Your task to perform on an android device: turn pop-ups on in chrome Image 0: 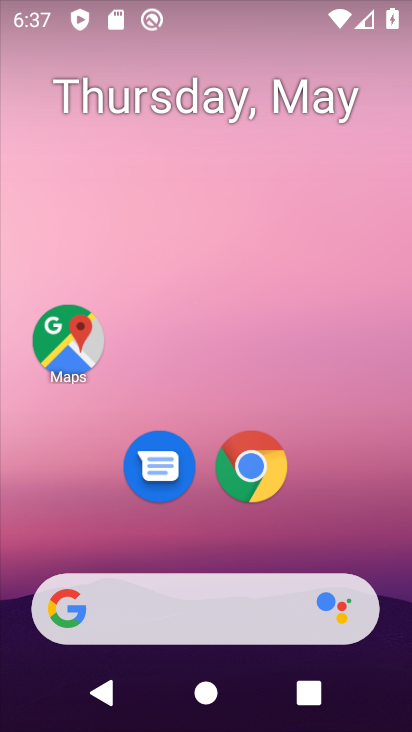
Step 0: click (253, 464)
Your task to perform on an android device: turn pop-ups on in chrome Image 1: 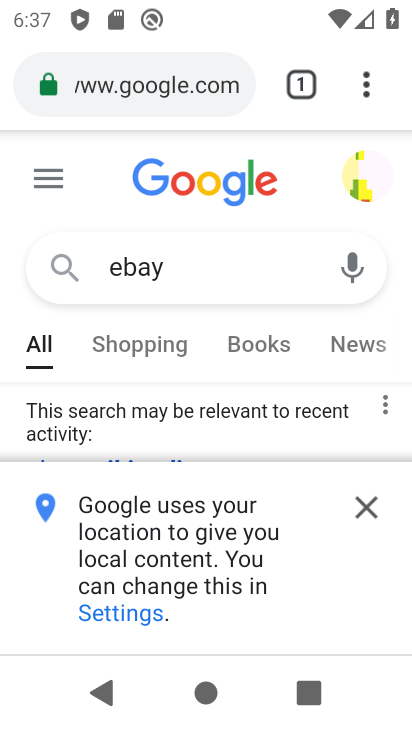
Step 1: click (363, 80)
Your task to perform on an android device: turn pop-ups on in chrome Image 2: 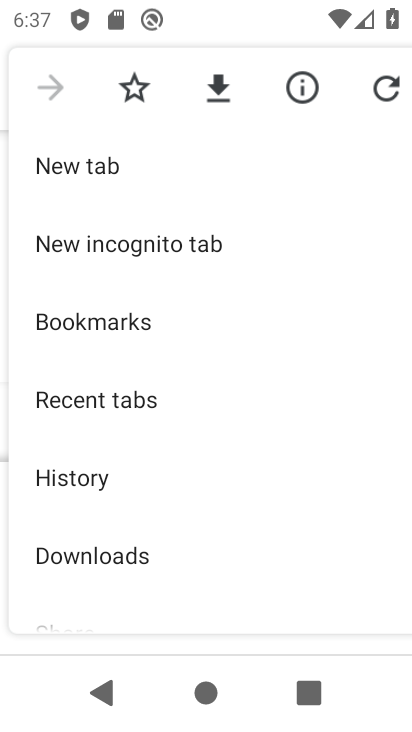
Step 2: drag from (243, 418) to (219, 103)
Your task to perform on an android device: turn pop-ups on in chrome Image 3: 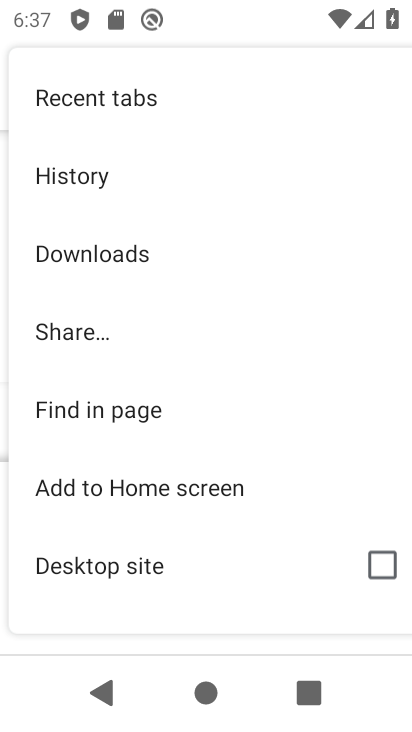
Step 3: drag from (247, 517) to (247, 200)
Your task to perform on an android device: turn pop-ups on in chrome Image 4: 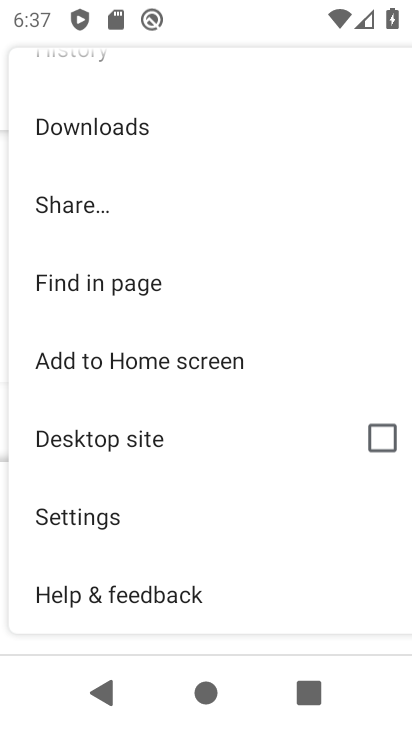
Step 4: click (76, 520)
Your task to perform on an android device: turn pop-ups on in chrome Image 5: 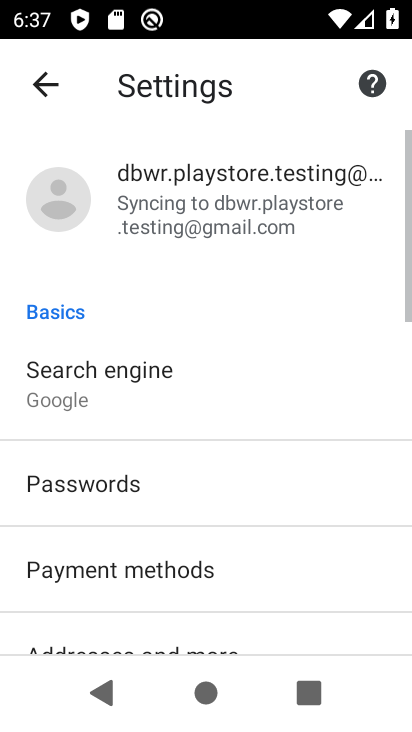
Step 5: drag from (211, 486) to (161, 191)
Your task to perform on an android device: turn pop-ups on in chrome Image 6: 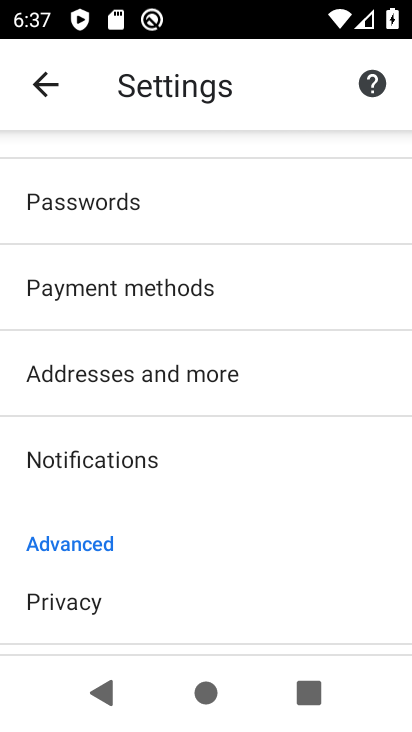
Step 6: drag from (258, 536) to (249, 222)
Your task to perform on an android device: turn pop-ups on in chrome Image 7: 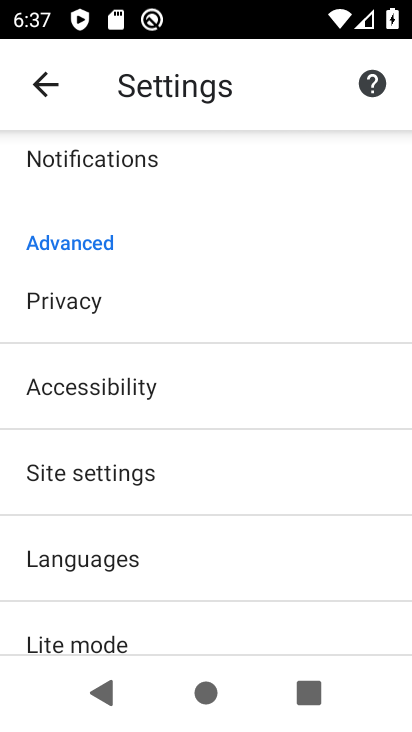
Step 7: click (107, 477)
Your task to perform on an android device: turn pop-ups on in chrome Image 8: 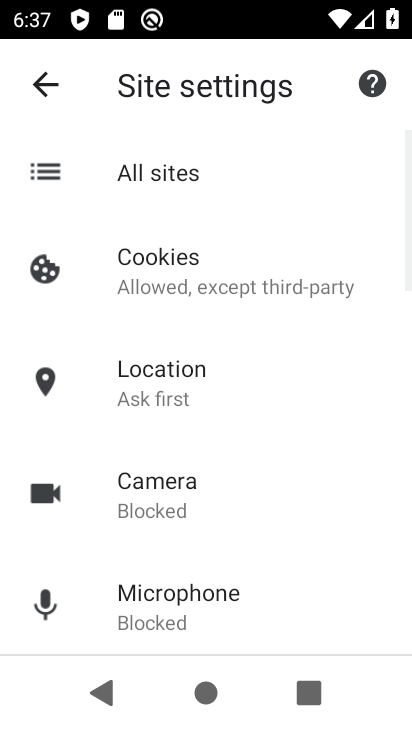
Step 8: drag from (288, 549) to (234, 82)
Your task to perform on an android device: turn pop-ups on in chrome Image 9: 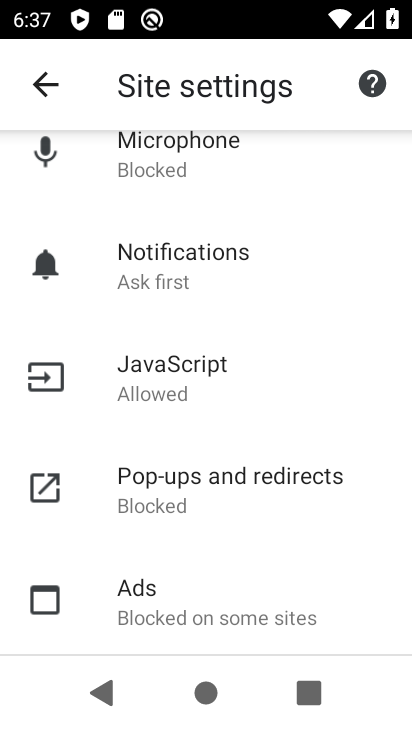
Step 9: click (198, 466)
Your task to perform on an android device: turn pop-ups on in chrome Image 10: 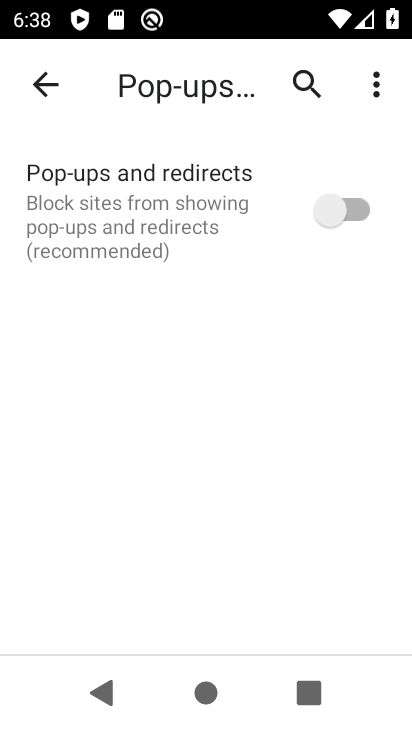
Step 10: click (330, 205)
Your task to perform on an android device: turn pop-ups on in chrome Image 11: 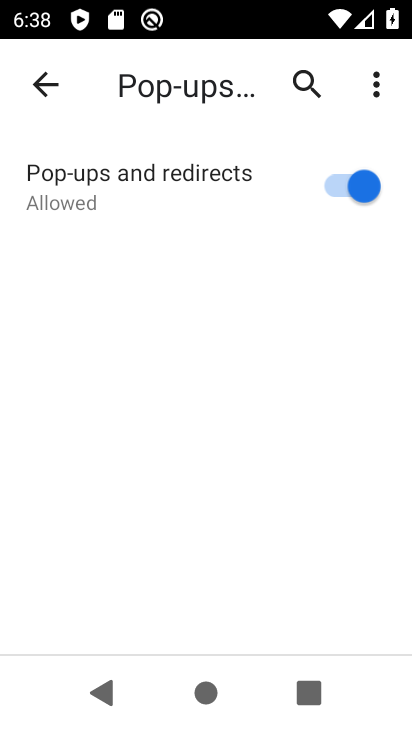
Step 11: task complete